Your task to perform on an android device: Go to battery settings Image 0: 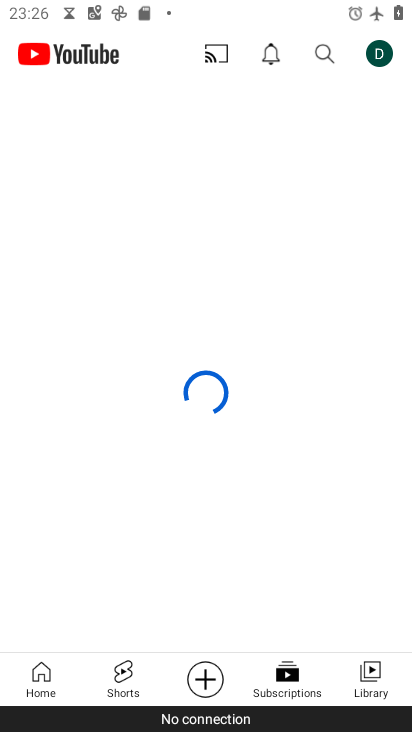
Step 0: press home button
Your task to perform on an android device: Go to battery settings Image 1: 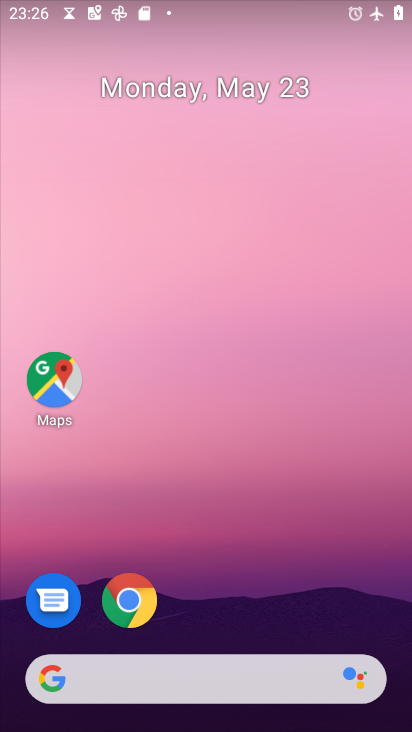
Step 1: drag from (203, 724) to (213, 288)
Your task to perform on an android device: Go to battery settings Image 2: 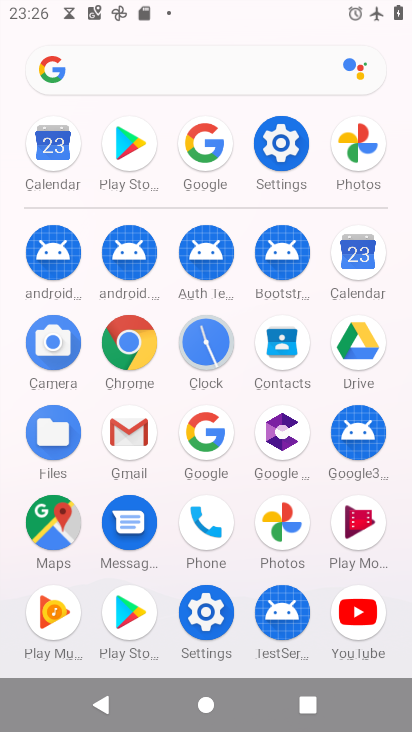
Step 2: click (290, 150)
Your task to perform on an android device: Go to battery settings Image 3: 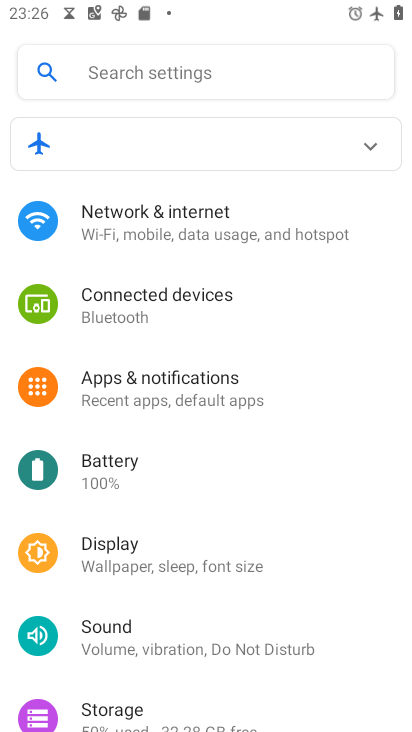
Step 3: click (103, 463)
Your task to perform on an android device: Go to battery settings Image 4: 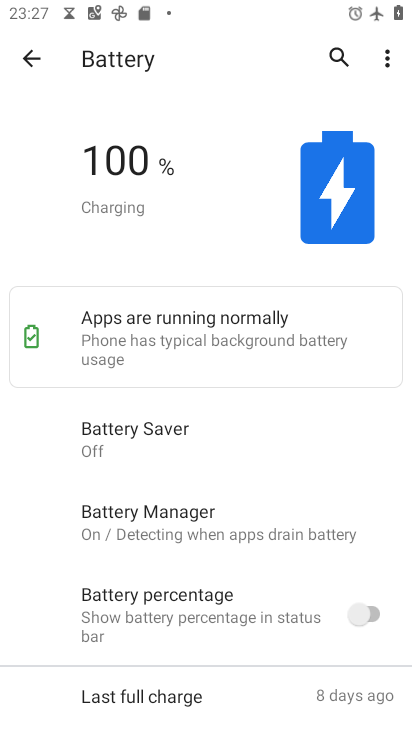
Step 4: task complete